Your task to perform on an android device: Show me productivity apps on the Play Store Image 0: 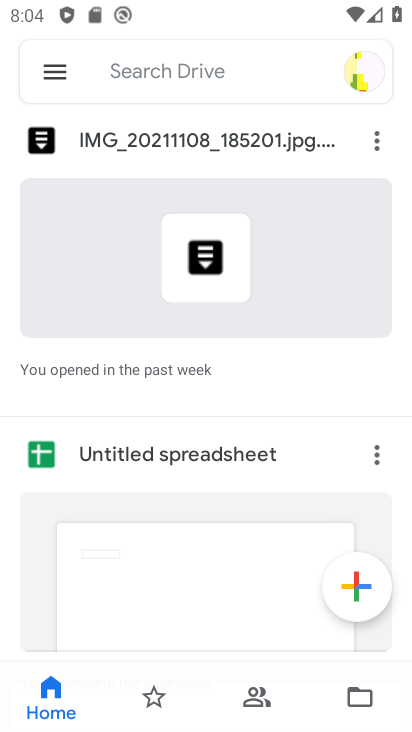
Step 0: press home button
Your task to perform on an android device: Show me productivity apps on the Play Store Image 1: 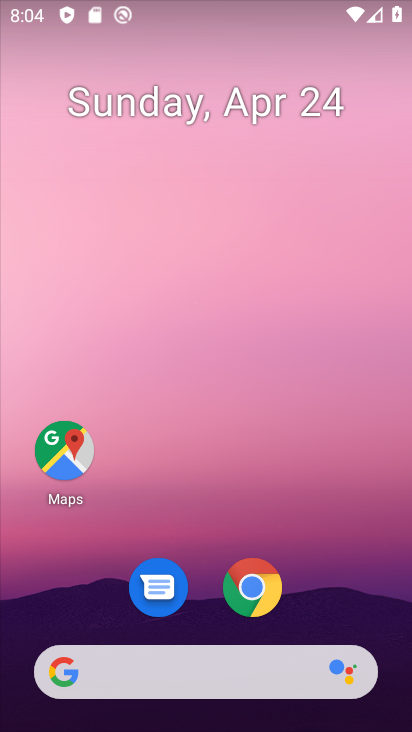
Step 1: drag from (325, 532) to (311, 214)
Your task to perform on an android device: Show me productivity apps on the Play Store Image 2: 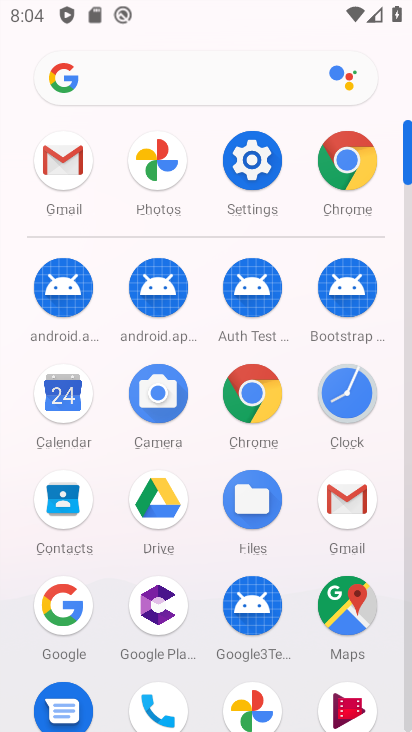
Step 2: drag from (195, 617) to (248, 259)
Your task to perform on an android device: Show me productivity apps on the Play Store Image 3: 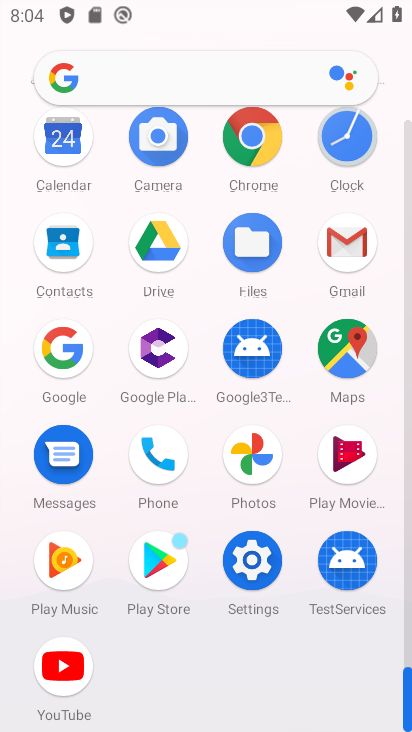
Step 3: click (163, 571)
Your task to perform on an android device: Show me productivity apps on the Play Store Image 4: 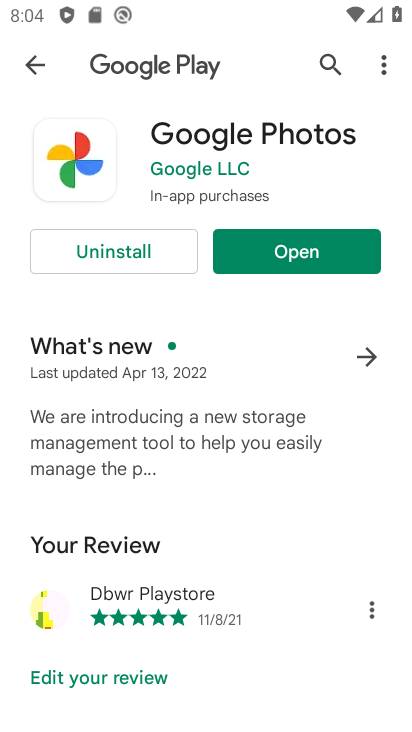
Step 4: click (19, 55)
Your task to perform on an android device: Show me productivity apps on the Play Store Image 5: 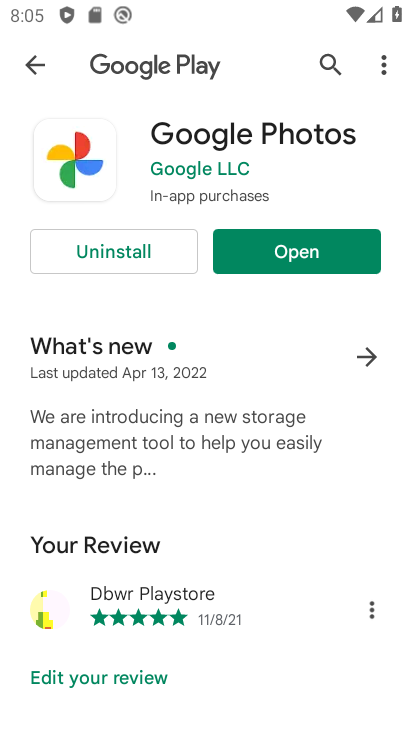
Step 5: click (34, 60)
Your task to perform on an android device: Show me productivity apps on the Play Store Image 6: 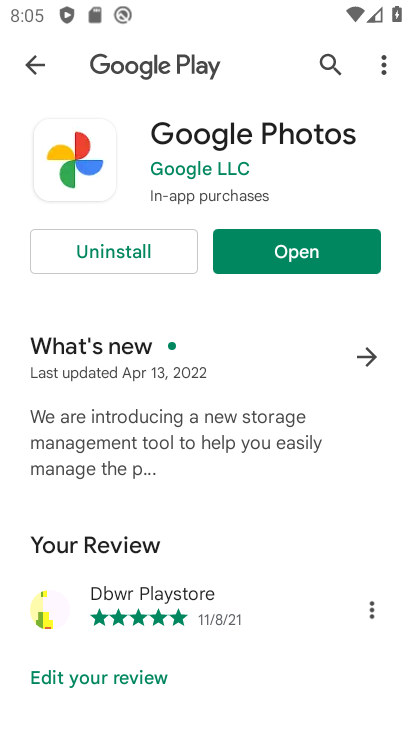
Step 6: click (28, 67)
Your task to perform on an android device: Show me productivity apps on the Play Store Image 7: 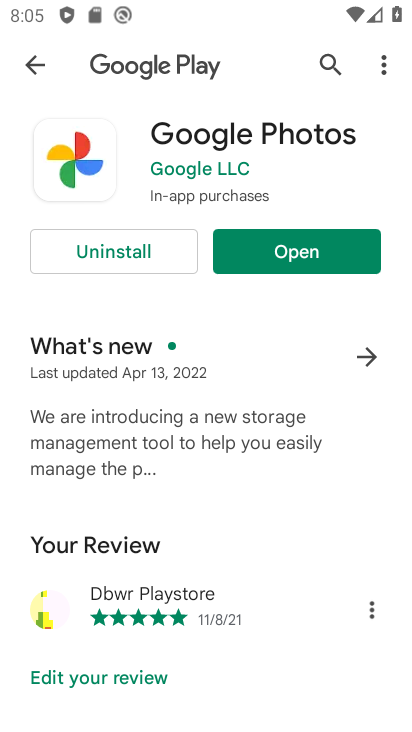
Step 7: click (29, 64)
Your task to perform on an android device: Show me productivity apps on the Play Store Image 8: 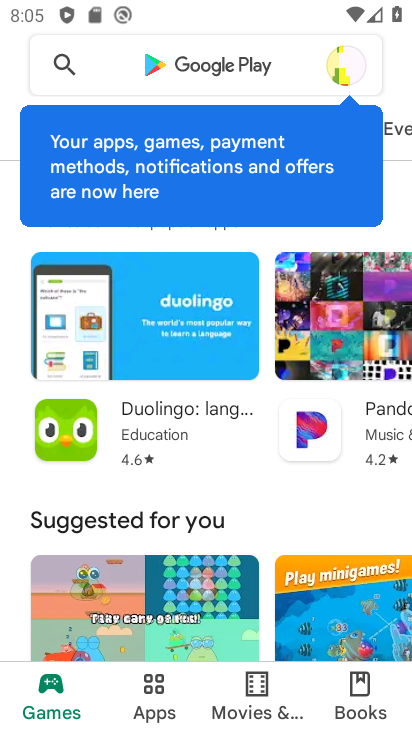
Step 8: click (142, 707)
Your task to perform on an android device: Show me productivity apps on the Play Store Image 9: 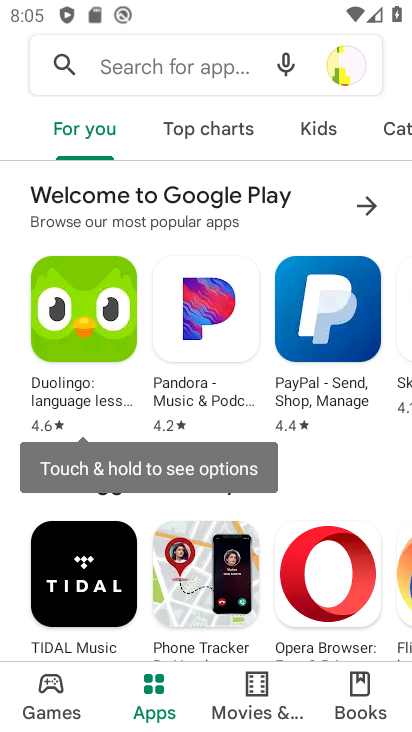
Step 9: click (391, 134)
Your task to perform on an android device: Show me productivity apps on the Play Store Image 10: 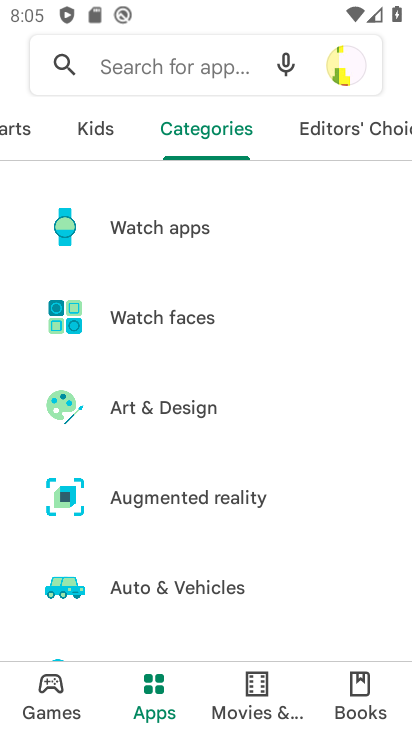
Step 10: drag from (279, 602) to (268, 100)
Your task to perform on an android device: Show me productivity apps on the Play Store Image 11: 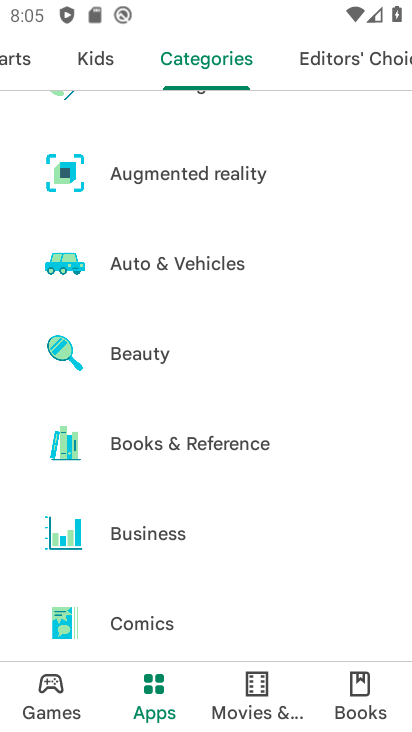
Step 11: drag from (294, 582) to (261, 184)
Your task to perform on an android device: Show me productivity apps on the Play Store Image 12: 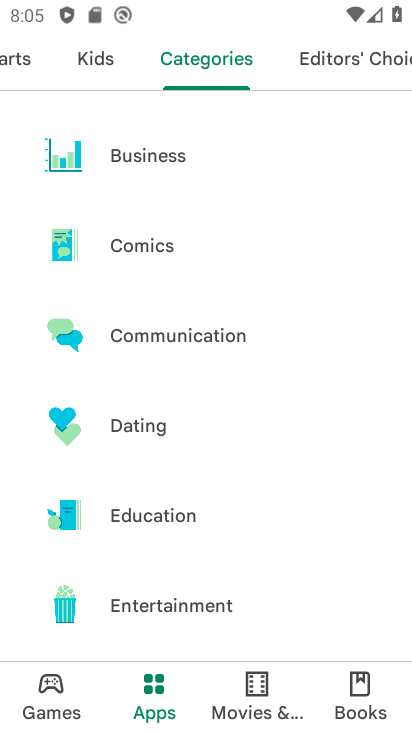
Step 12: drag from (302, 608) to (261, 199)
Your task to perform on an android device: Show me productivity apps on the Play Store Image 13: 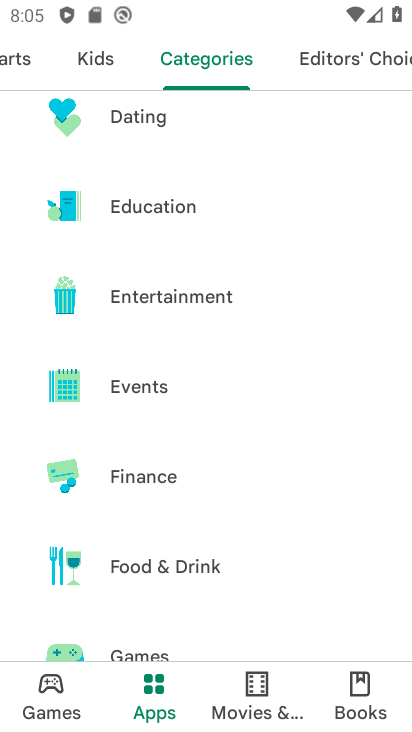
Step 13: drag from (264, 606) to (270, 246)
Your task to perform on an android device: Show me productivity apps on the Play Store Image 14: 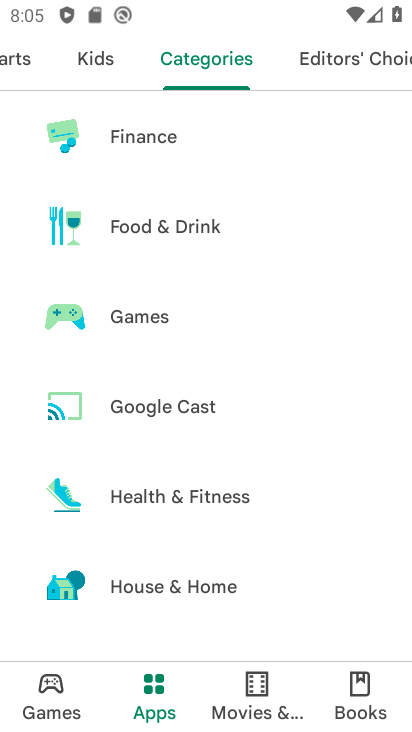
Step 14: drag from (263, 555) to (253, 244)
Your task to perform on an android device: Show me productivity apps on the Play Store Image 15: 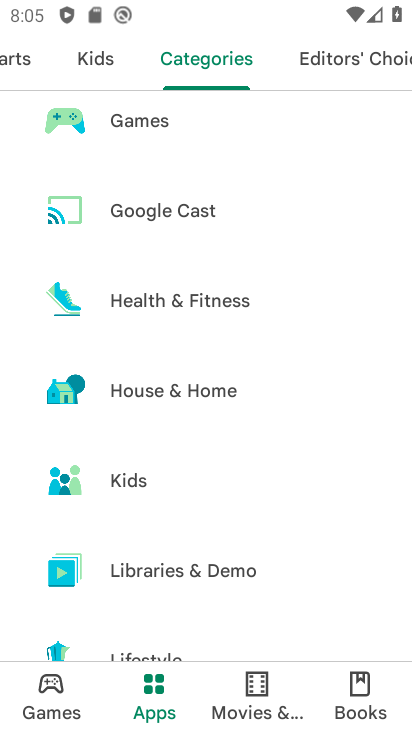
Step 15: drag from (255, 591) to (254, 267)
Your task to perform on an android device: Show me productivity apps on the Play Store Image 16: 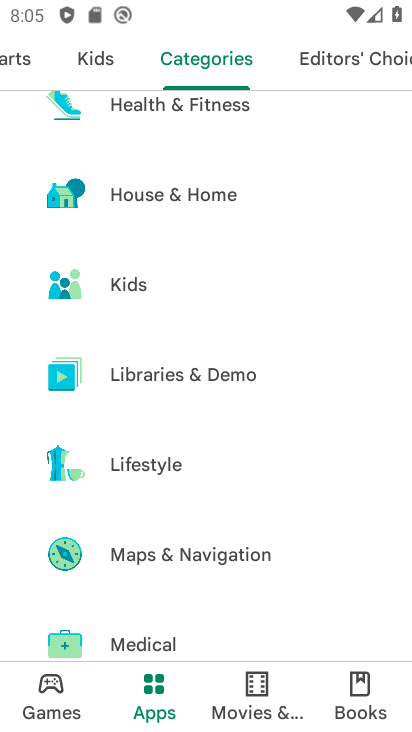
Step 16: drag from (272, 641) to (283, 210)
Your task to perform on an android device: Show me productivity apps on the Play Store Image 17: 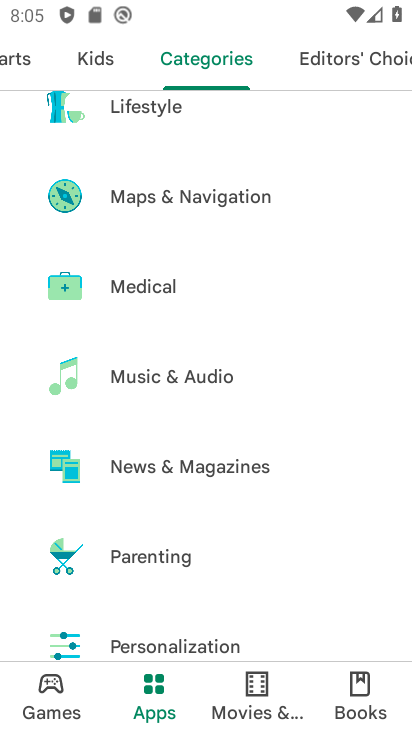
Step 17: drag from (279, 557) to (265, 186)
Your task to perform on an android device: Show me productivity apps on the Play Store Image 18: 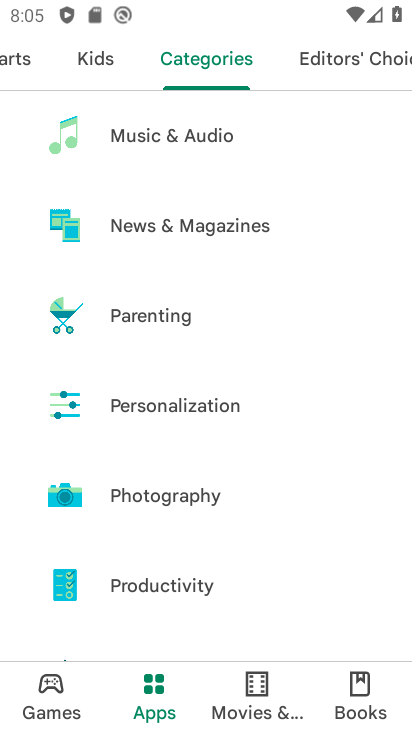
Step 18: click (187, 579)
Your task to perform on an android device: Show me productivity apps on the Play Store Image 19: 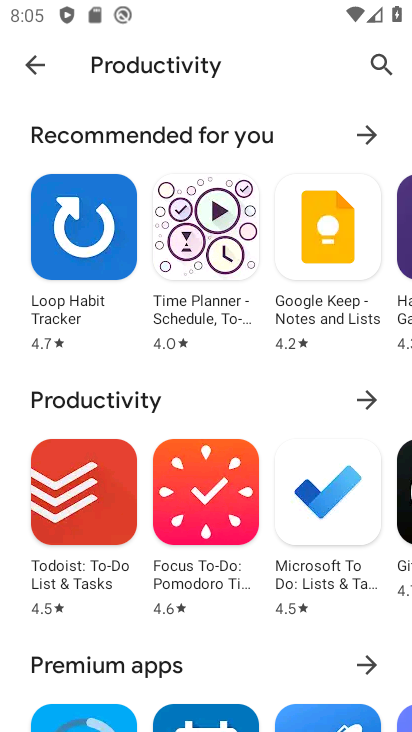
Step 19: task complete